Your task to perform on an android device: check battery use Image 0: 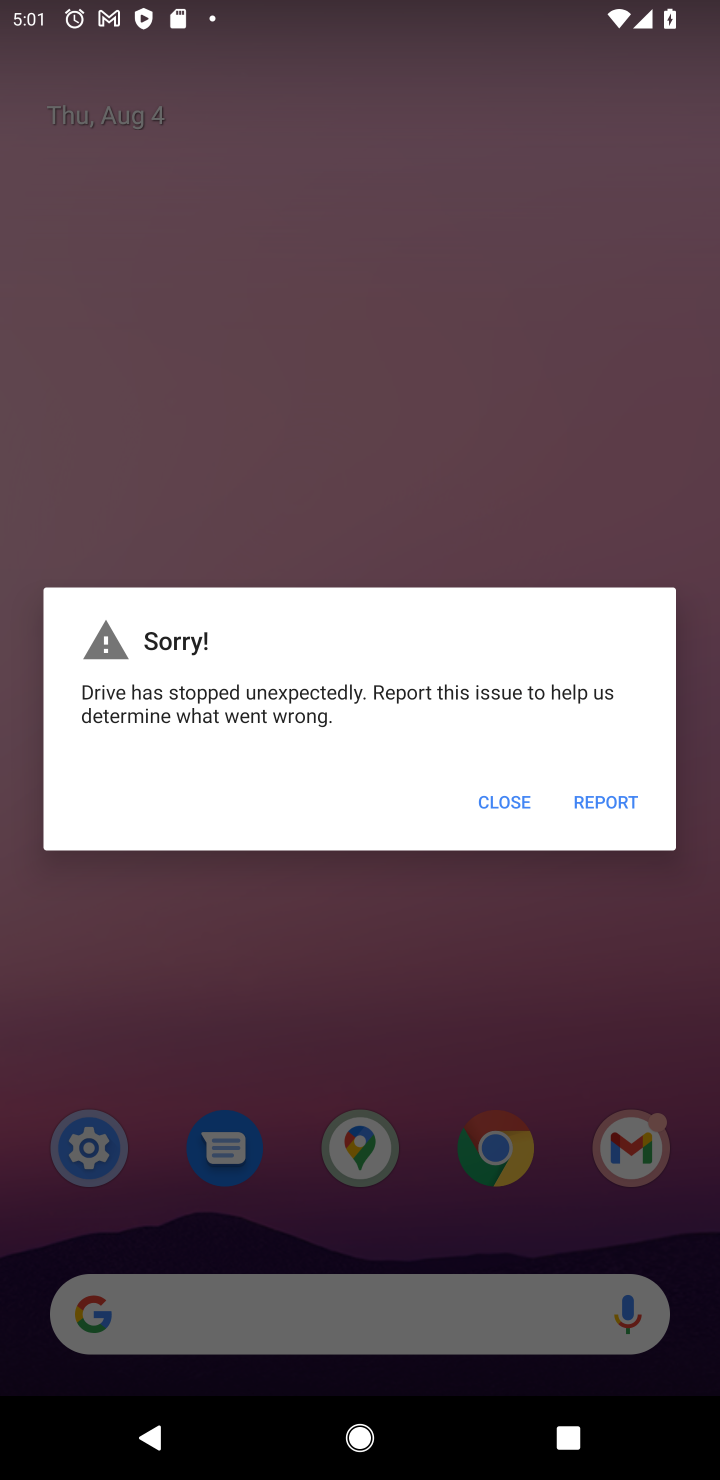
Step 0: press home button
Your task to perform on an android device: check battery use Image 1: 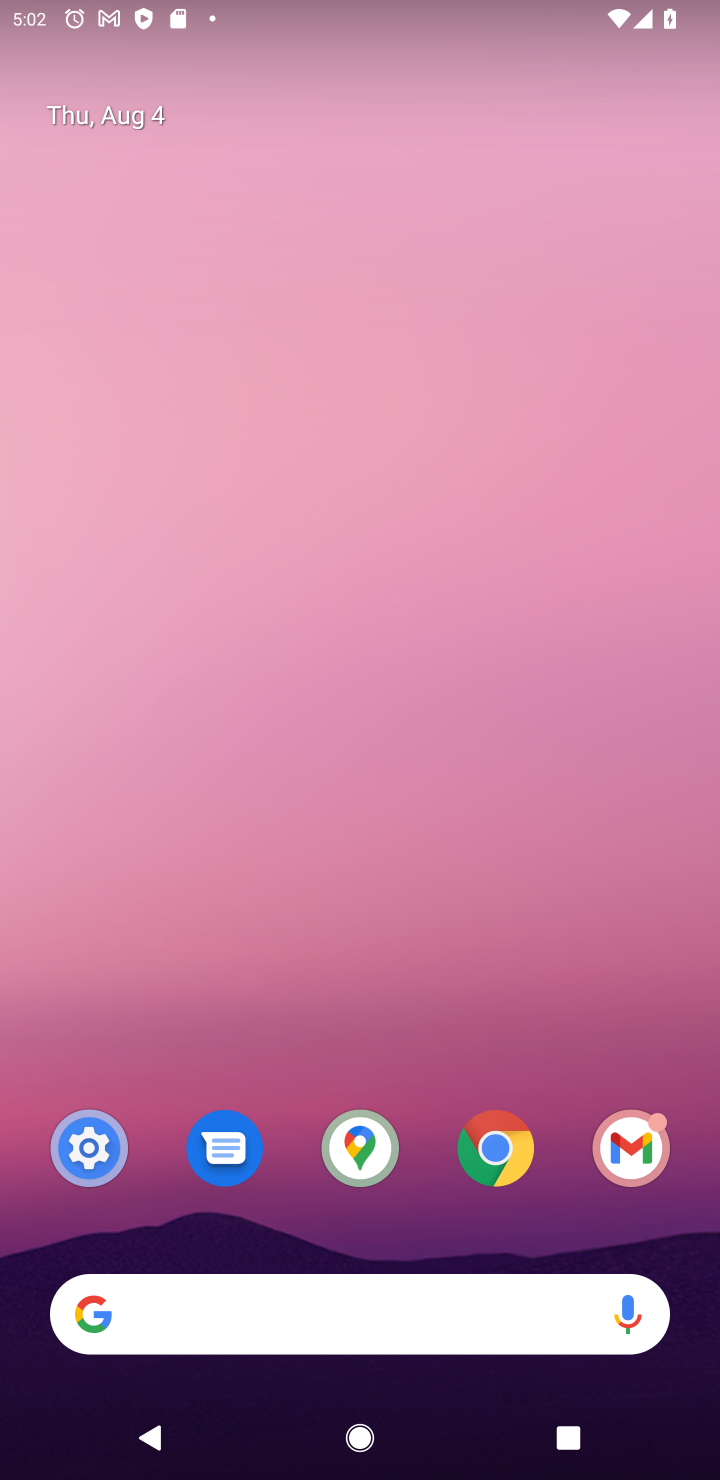
Step 1: click (91, 1141)
Your task to perform on an android device: check battery use Image 2: 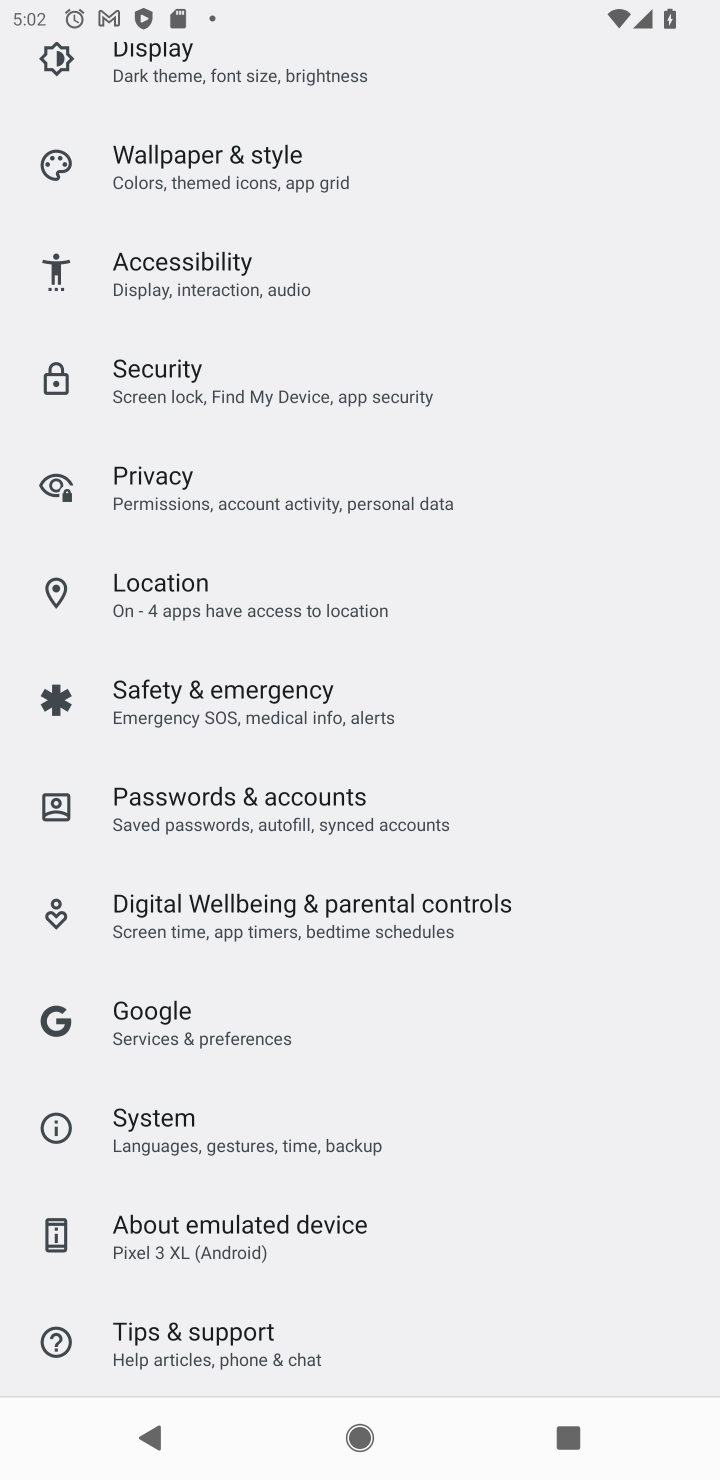
Step 2: drag from (524, 341) to (525, 1062)
Your task to perform on an android device: check battery use Image 3: 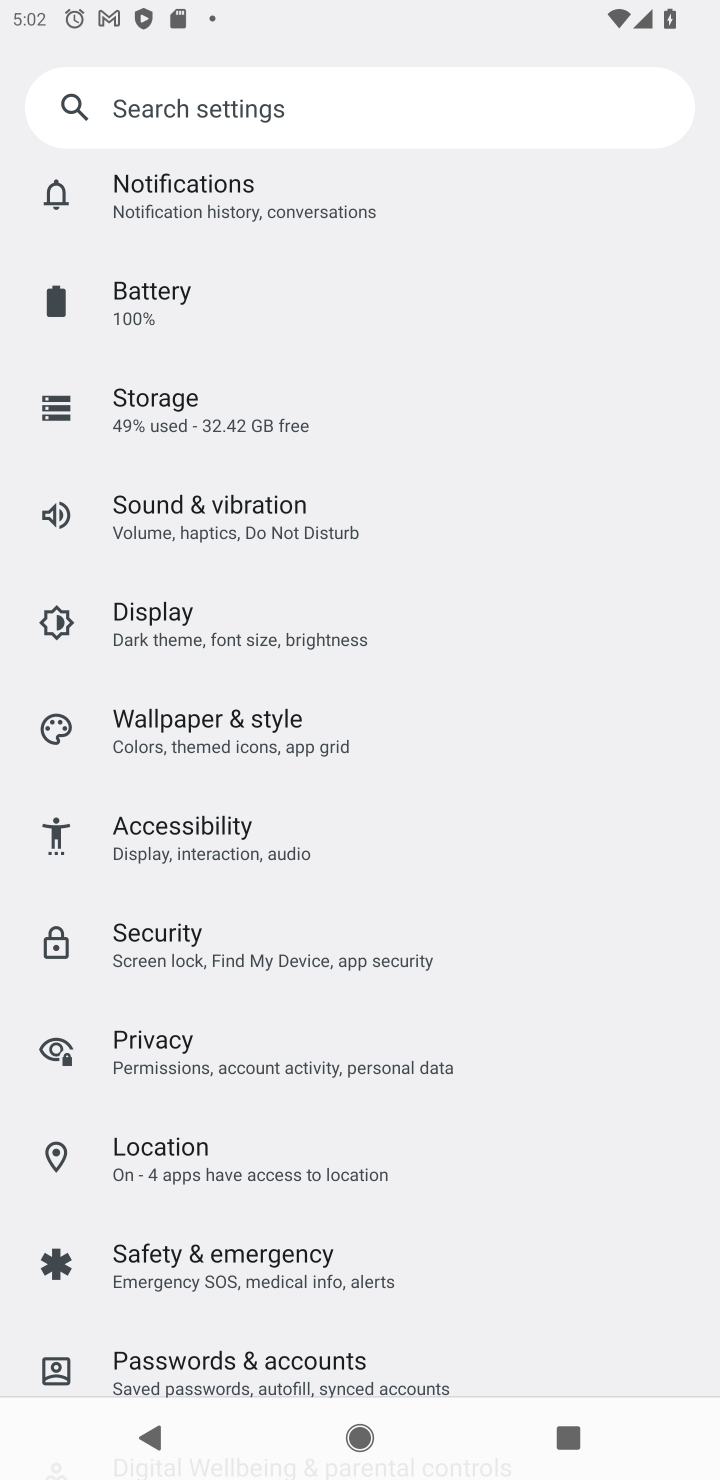
Step 3: click (107, 295)
Your task to perform on an android device: check battery use Image 4: 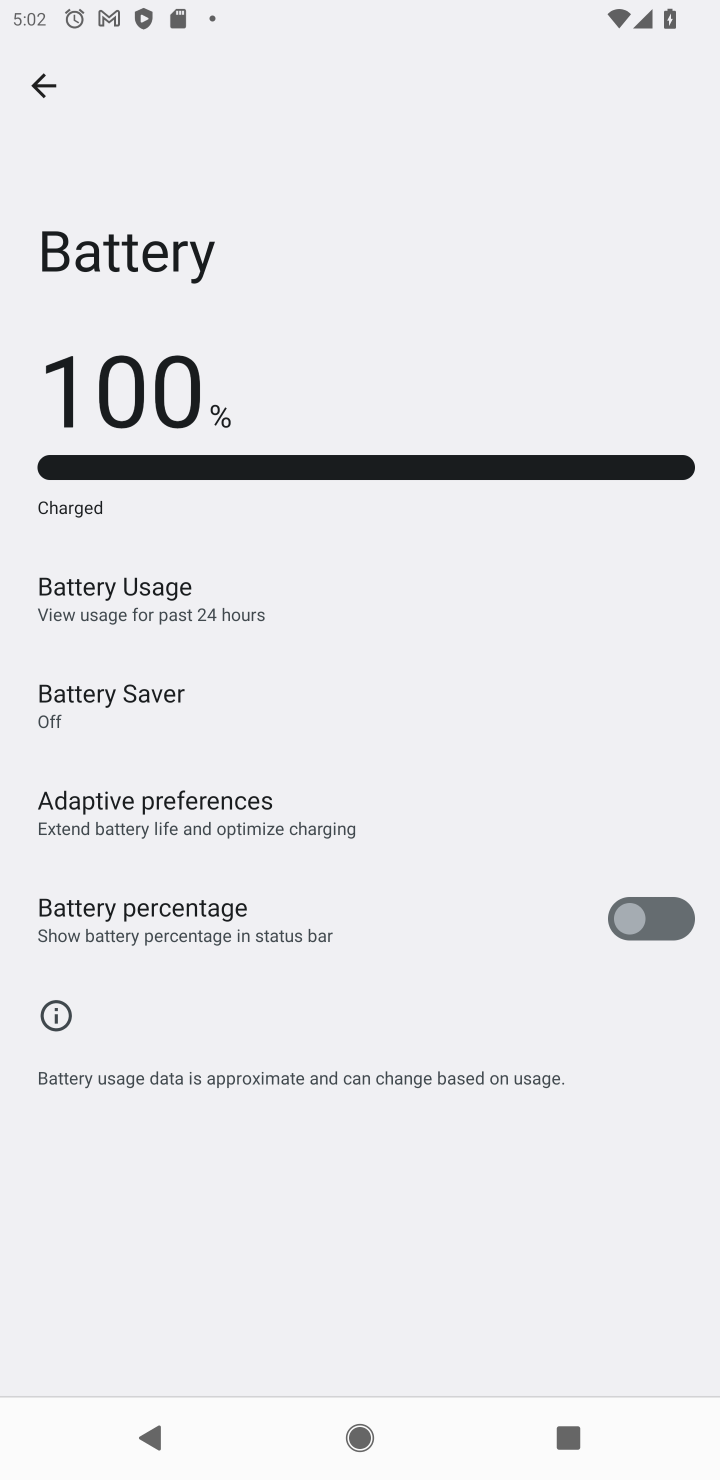
Step 4: click (86, 598)
Your task to perform on an android device: check battery use Image 5: 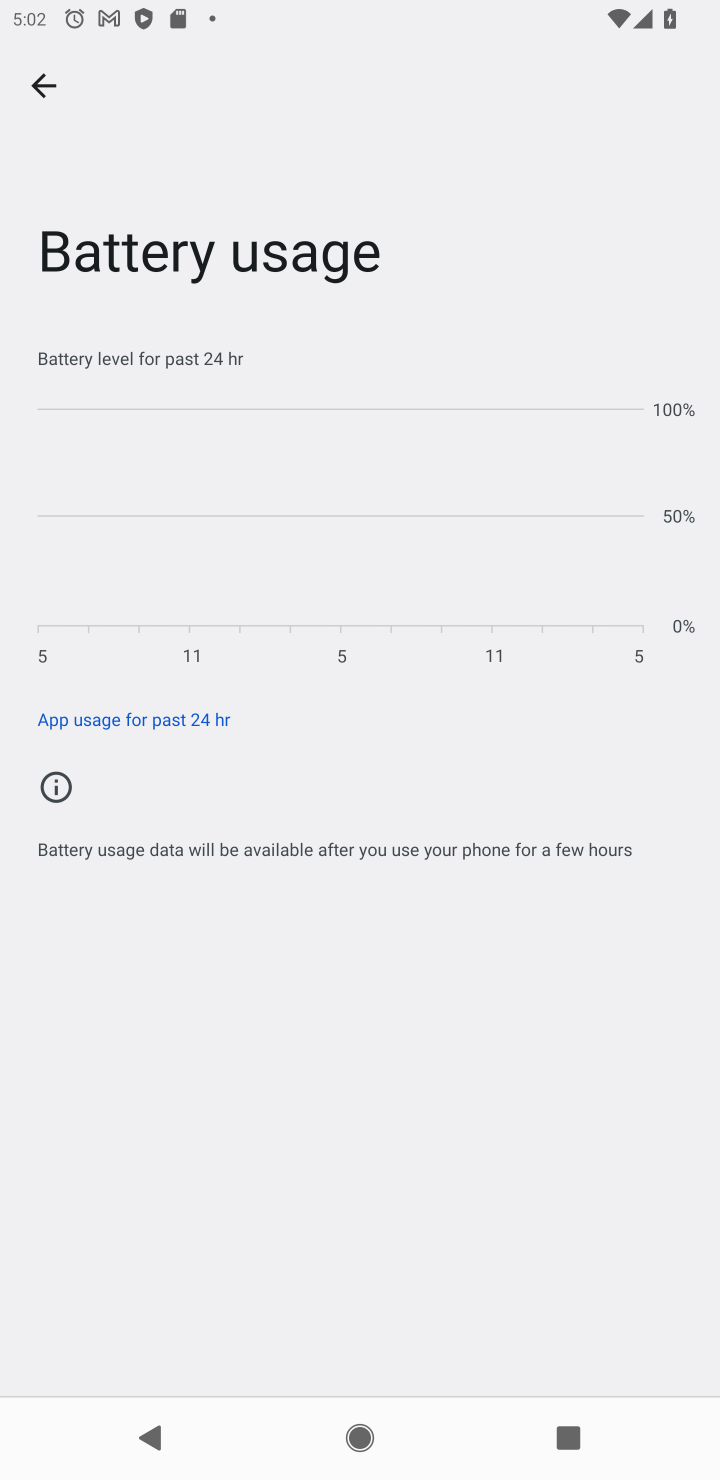
Step 5: task complete